Your task to perform on an android device: toggle pop-ups in chrome Image 0: 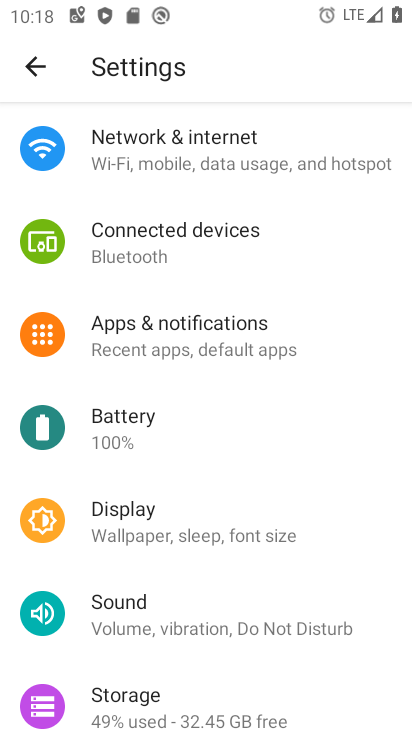
Step 0: press home button
Your task to perform on an android device: toggle pop-ups in chrome Image 1: 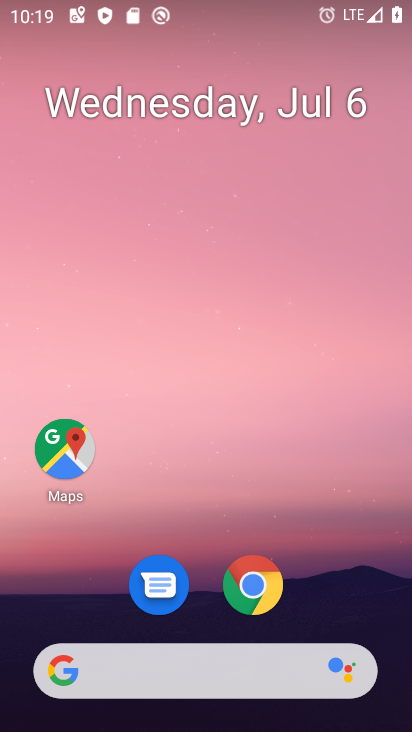
Step 1: click (254, 586)
Your task to perform on an android device: toggle pop-ups in chrome Image 2: 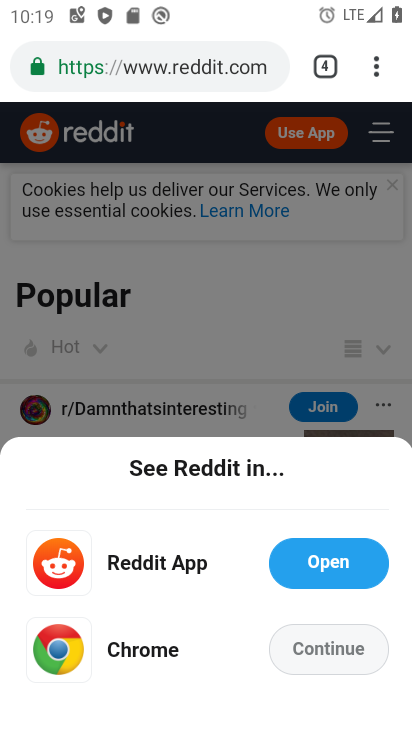
Step 2: click (373, 70)
Your task to perform on an android device: toggle pop-ups in chrome Image 3: 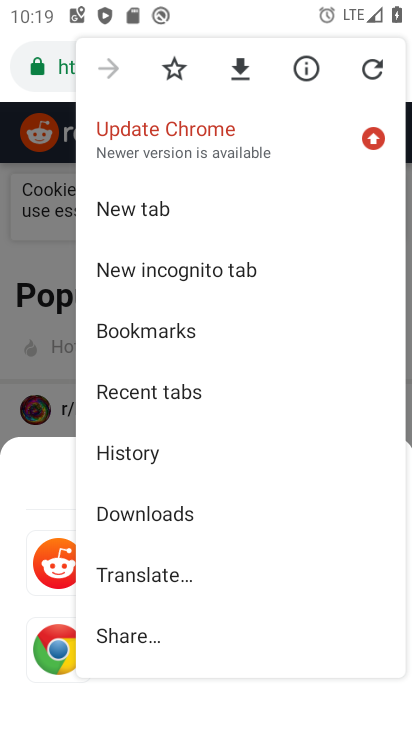
Step 3: drag from (216, 498) to (226, 207)
Your task to perform on an android device: toggle pop-ups in chrome Image 4: 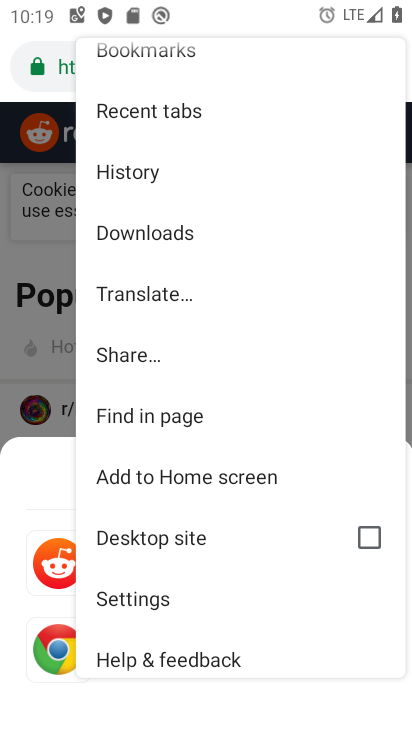
Step 4: click (177, 588)
Your task to perform on an android device: toggle pop-ups in chrome Image 5: 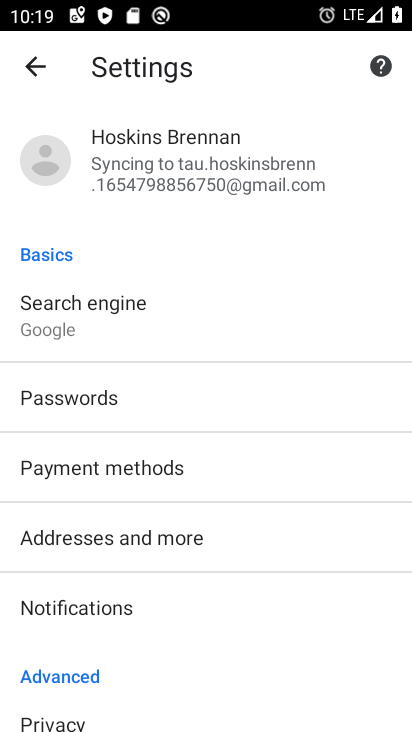
Step 5: drag from (218, 612) to (250, 286)
Your task to perform on an android device: toggle pop-ups in chrome Image 6: 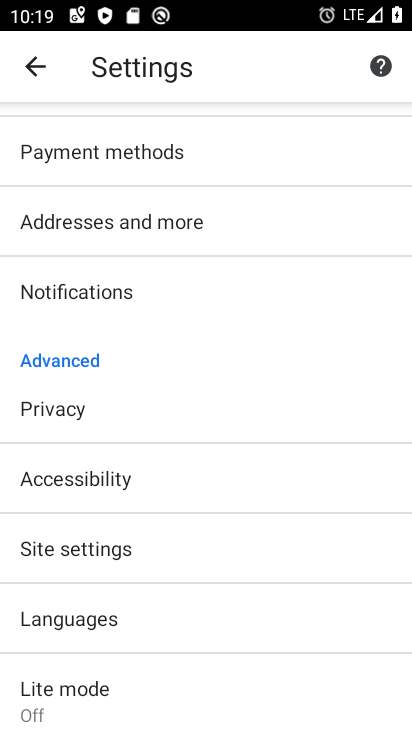
Step 6: click (214, 527)
Your task to perform on an android device: toggle pop-ups in chrome Image 7: 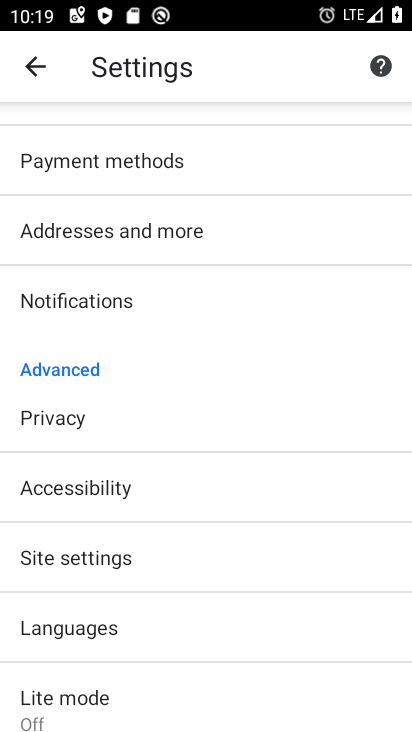
Step 7: click (210, 545)
Your task to perform on an android device: toggle pop-ups in chrome Image 8: 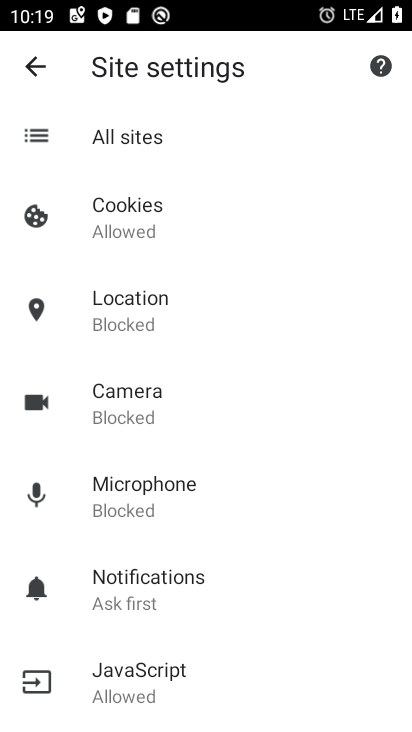
Step 8: drag from (259, 516) to (263, 302)
Your task to perform on an android device: toggle pop-ups in chrome Image 9: 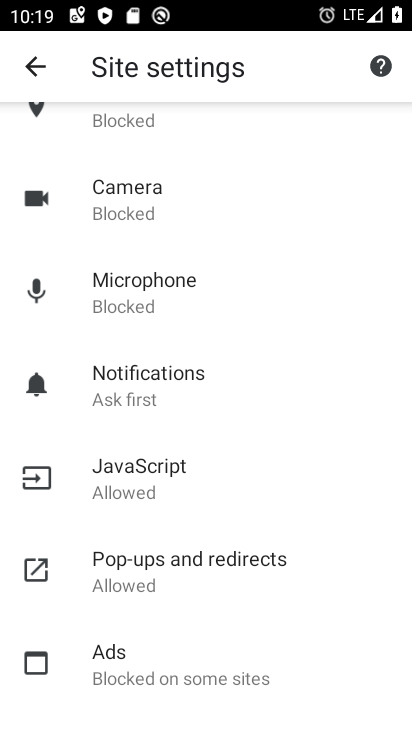
Step 9: click (198, 565)
Your task to perform on an android device: toggle pop-ups in chrome Image 10: 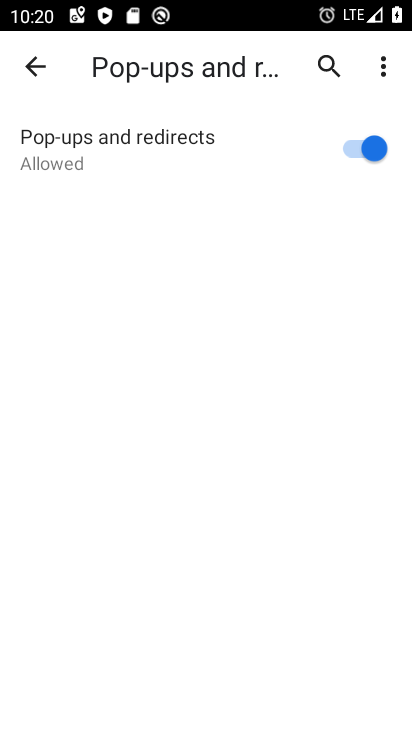
Step 10: click (353, 143)
Your task to perform on an android device: toggle pop-ups in chrome Image 11: 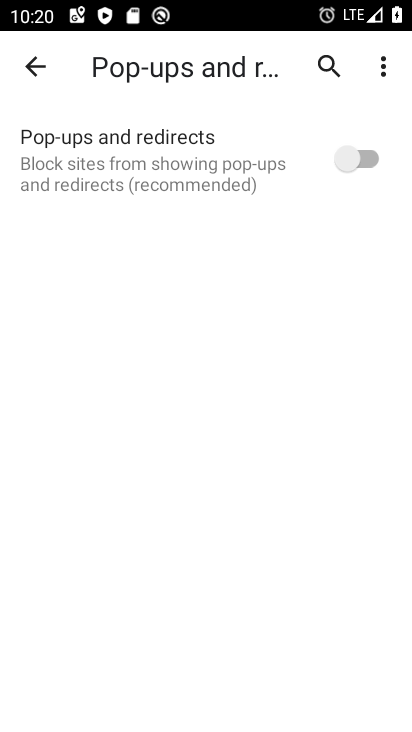
Step 11: task complete